Your task to perform on an android device: set the stopwatch Image 0: 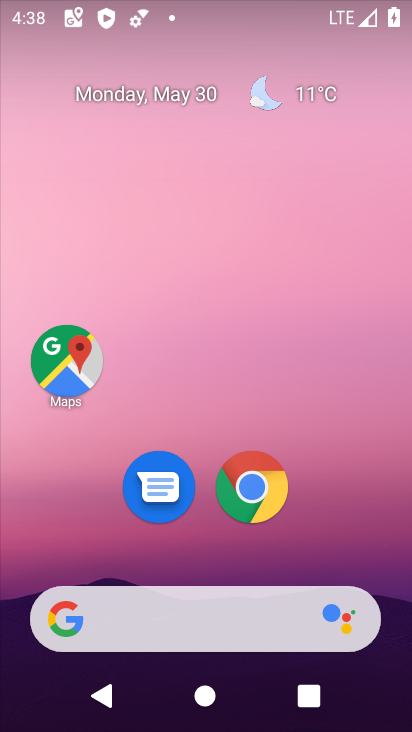
Step 0: drag from (405, 649) to (305, 82)
Your task to perform on an android device: set the stopwatch Image 1: 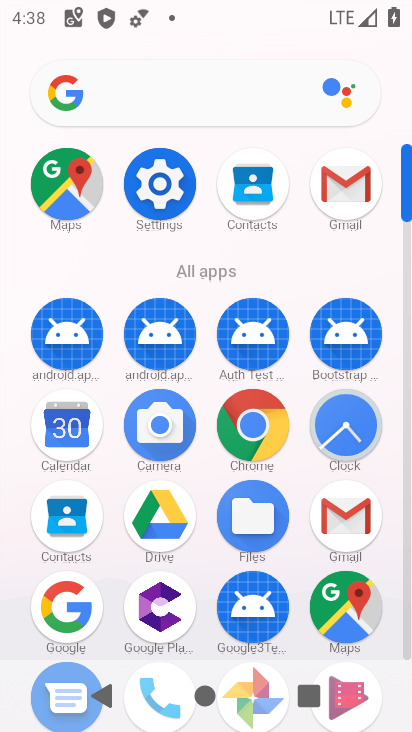
Step 1: click (345, 425)
Your task to perform on an android device: set the stopwatch Image 2: 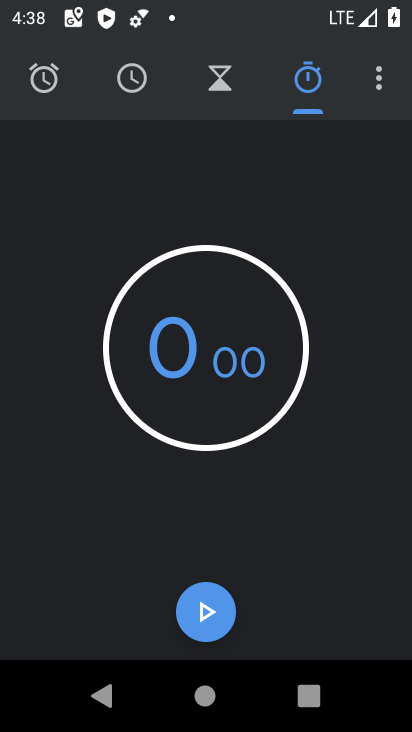
Step 2: task complete